Your task to perform on an android device: toggle translation in the chrome app Image 0: 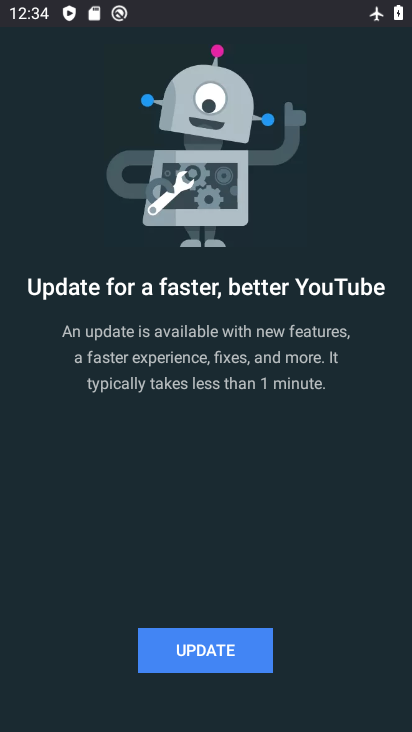
Step 0: press home button
Your task to perform on an android device: toggle translation in the chrome app Image 1: 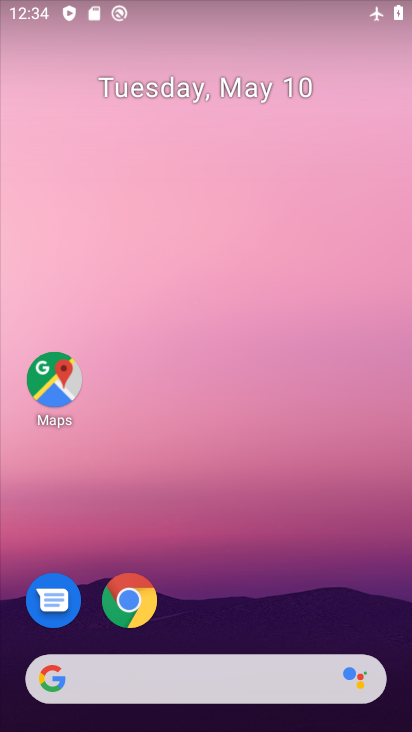
Step 1: drag from (247, 593) to (253, 144)
Your task to perform on an android device: toggle translation in the chrome app Image 2: 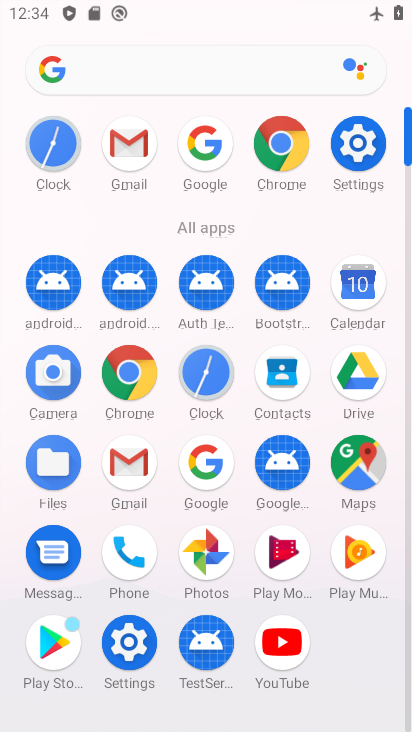
Step 2: click (285, 172)
Your task to perform on an android device: toggle translation in the chrome app Image 3: 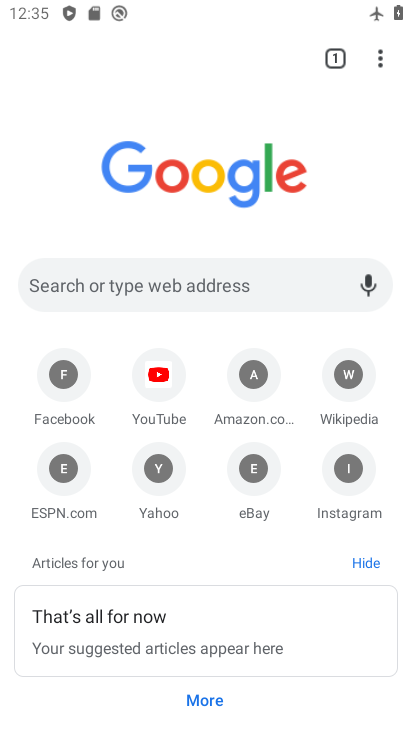
Step 3: click (378, 60)
Your task to perform on an android device: toggle translation in the chrome app Image 4: 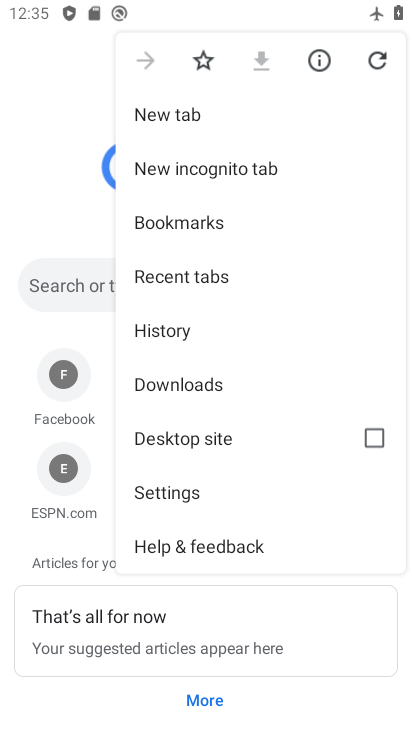
Step 4: click (251, 488)
Your task to perform on an android device: toggle translation in the chrome app Image 5: 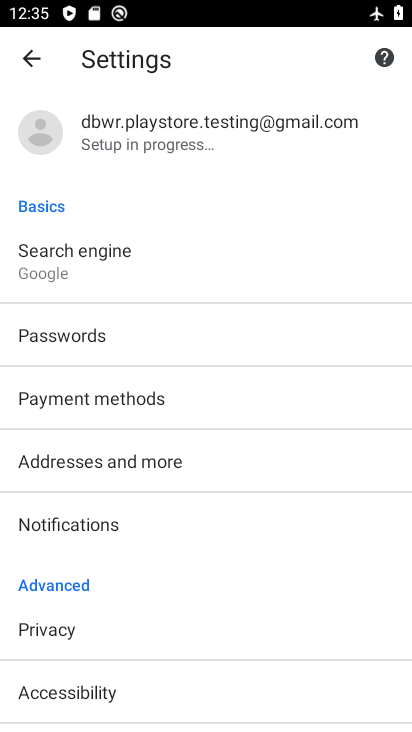
Step 5: task complete